Your task to perform on an android device: Open the web browser Image 0: 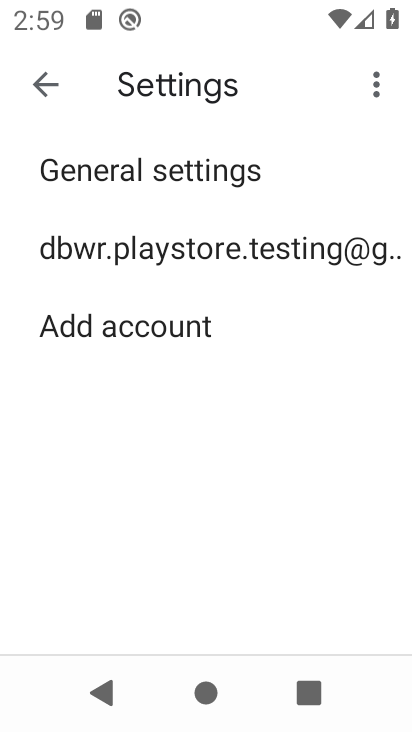
Step 0: press home button
Your task to perform on an android device: Open the web browser Image 1: 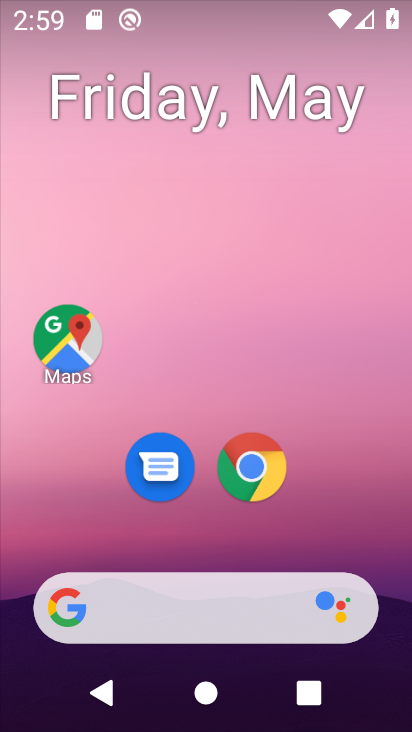
Step 1: click (262, 467)
Your task to perform on an android device: Open the web browser Image 2: 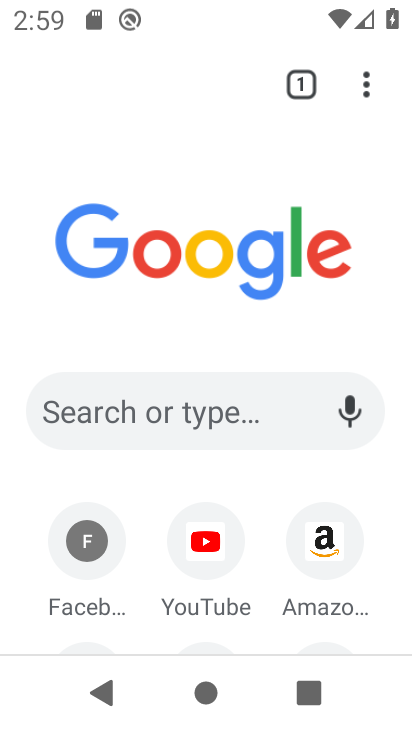
Step 2: task complete